Your task to perform on an android device: turn off sleep mode Image 0: 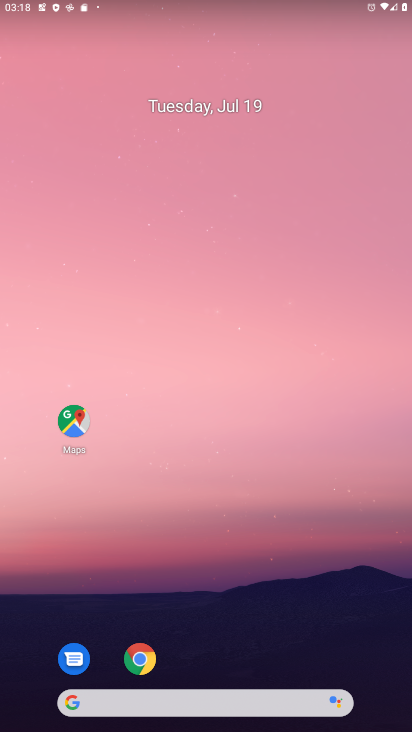
Step 0: press home button
Your task to perform on an android device: turn off sleep mode Image 1: 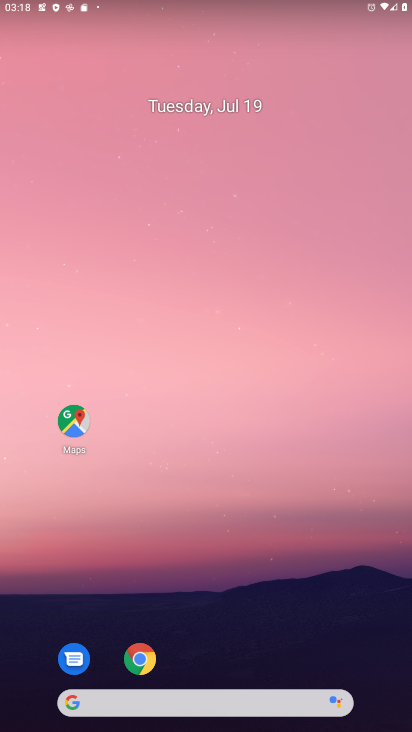
Step 1: drag from (224, 632) to (329, 120)
Your task to perform on an android device: turn off sleep mode Image 2: 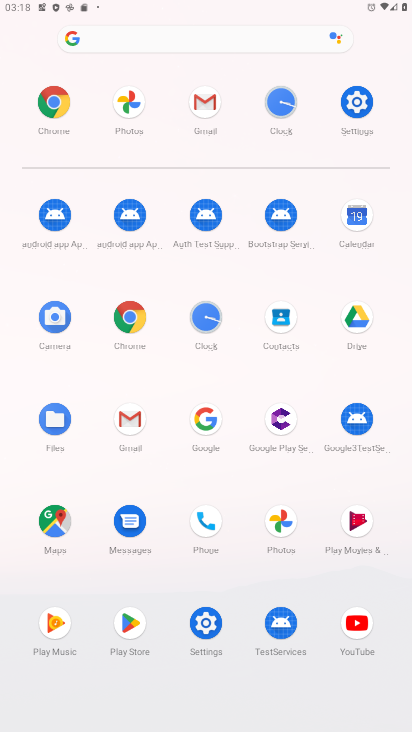
Step 2: click (206, 612)
Your task to perform on an android device: turn off sleep mode Image 3: 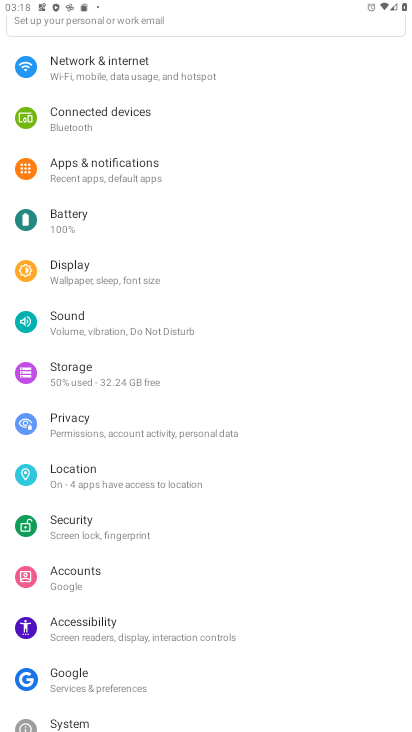
Step 3: click (113, 278)
Your task to perform on an android device: turn off sleep mode Image 4: 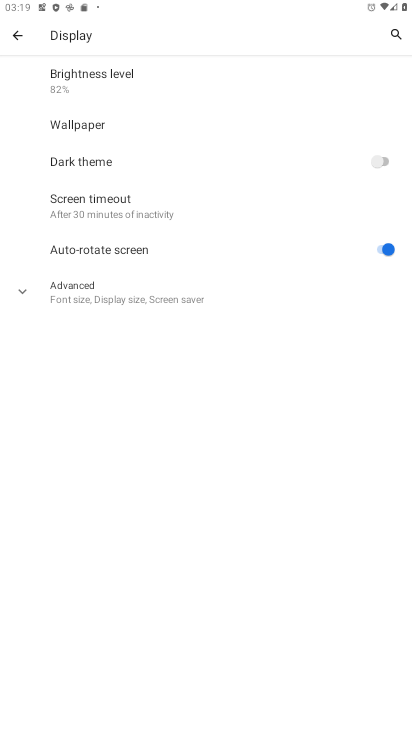
Step 4: click (126, 296)
Your task to perform on an android device: turn off sleep mode Image 5: 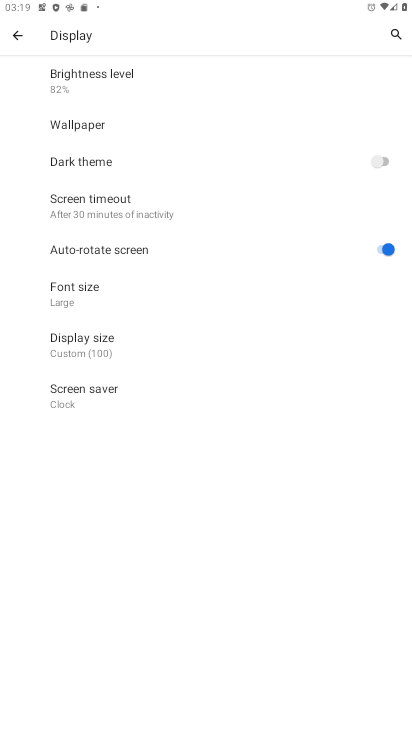
Step 5: task complete